Your task to perform on an android device: Search for Mexican restaurants on Maps Image 0: 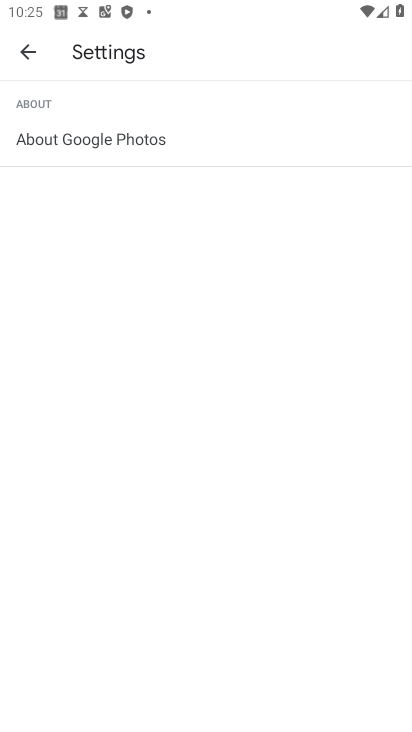
Step 0: press home button
Your task to perform on an android device: Search for Mexican restaurants on Maps Image 1: 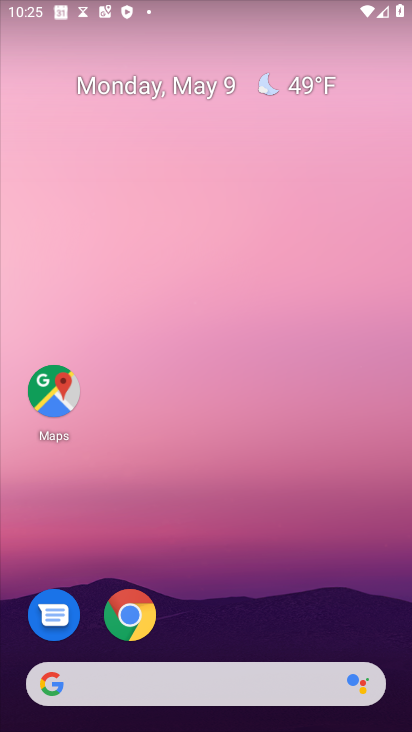
Step 1: drag from (224, 631) to (234, 228)
Your task to perform on an android device: Search for Mexican restaurants on Maps Image 2: 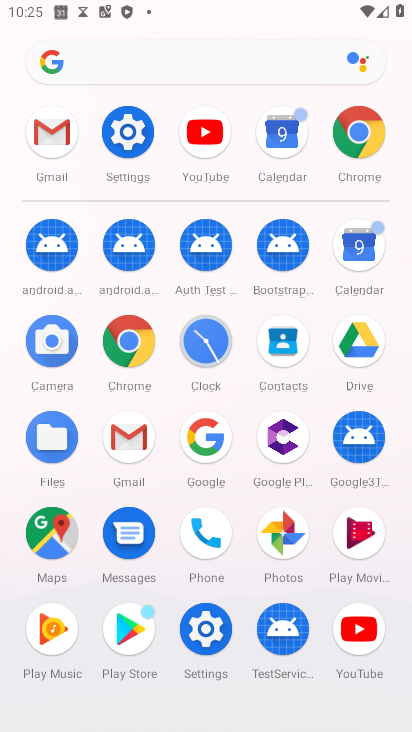
Step 2: click (52, 520)
Your task to perform on an android device: Search for Mexican restaurants on Maps Image 3: 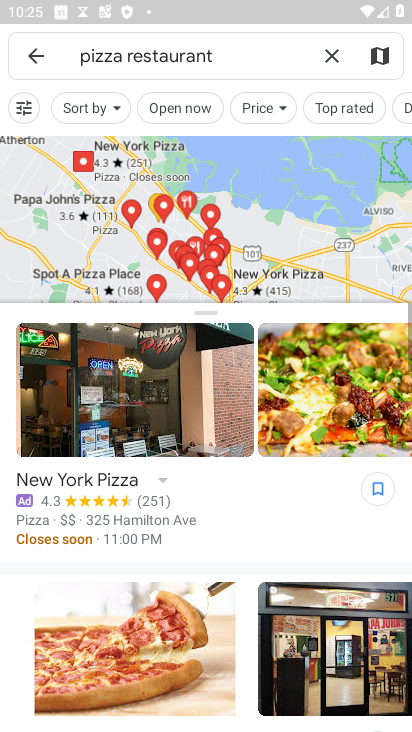
Step 3: click (333, 60)
Your task to perform on an android device: Search for Mexican restaurants on Maps Image 4: 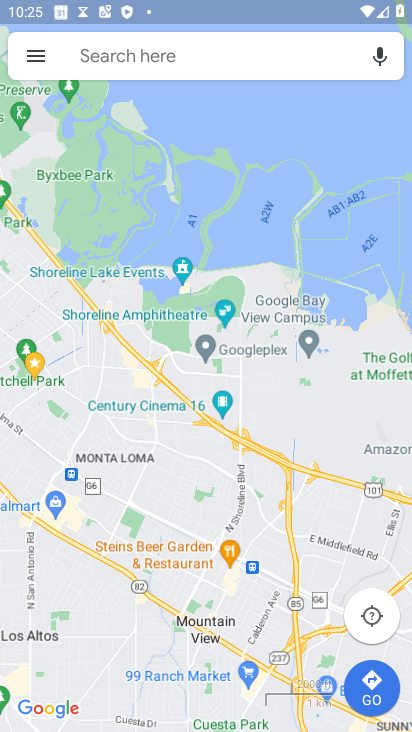
Step 4: click (189, 63)
Your task to perform on an android device: Search for Mexican restaurants on Maps Image 5: 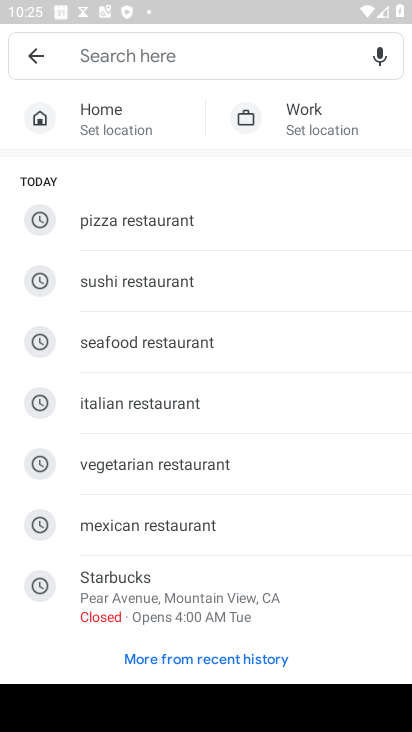
Step 5: click (168, 525)
Your task to perform on an android device: Search for Mexican restaurants on Maps Image 6: 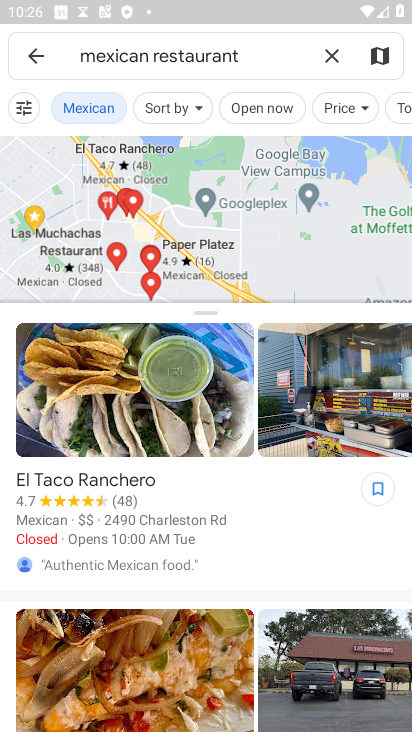
Step 6: task complete